Your task to perform on an android device: check google app version Image 0: 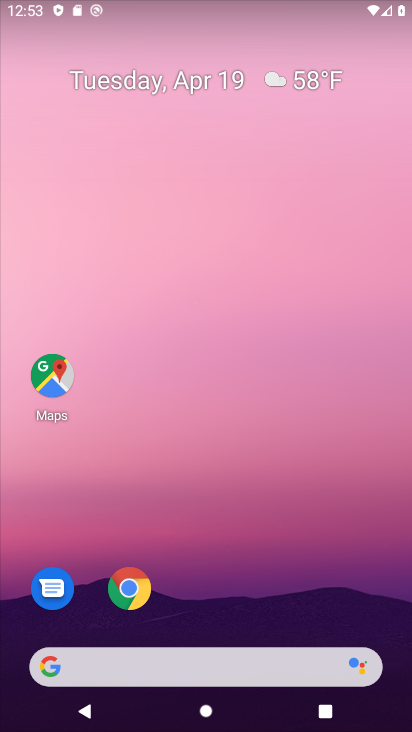
Step 0: drag from (225, 596) to (226, 209)
Your task to perform on an android device: check google app version Image 1: 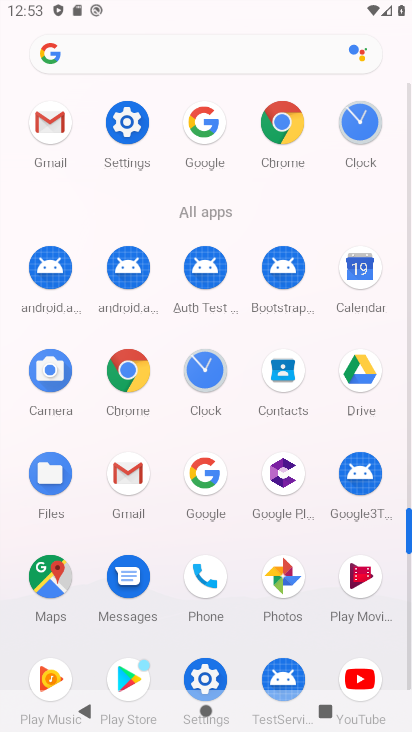
Step 1: click (207, 472)
Your task to perform on an android device: check google app version Image 2: 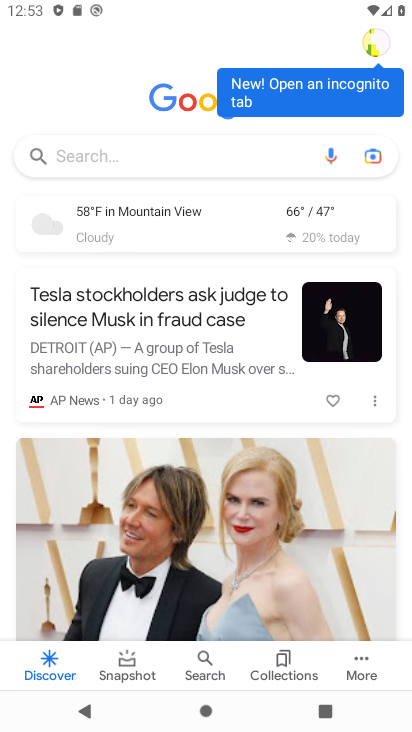
Step 2: click (359, 663)
Your task to perform on an android device: check google app version Image 3: 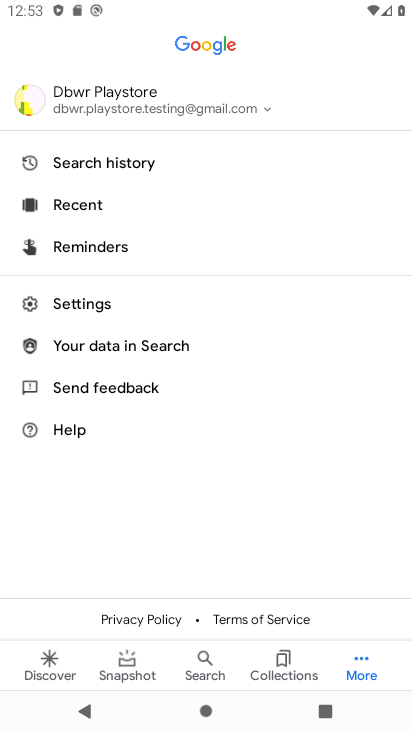
Step 3: click (82, 309)
Your task to perform on an android device: check google app version Image 4: 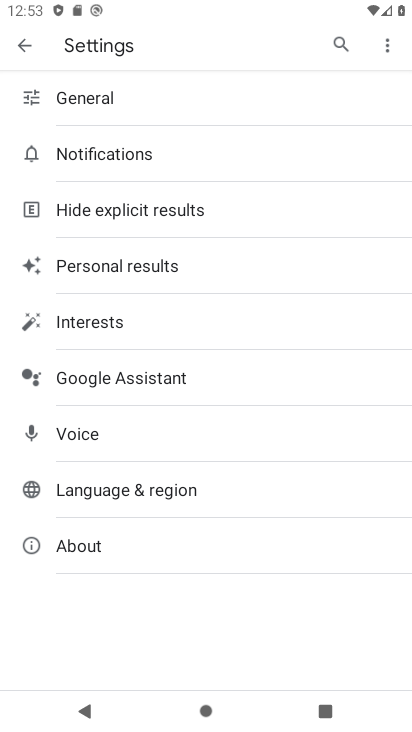
Step 4: click (134, 545)
Your task to perform on an android device: check google app version Image 5: 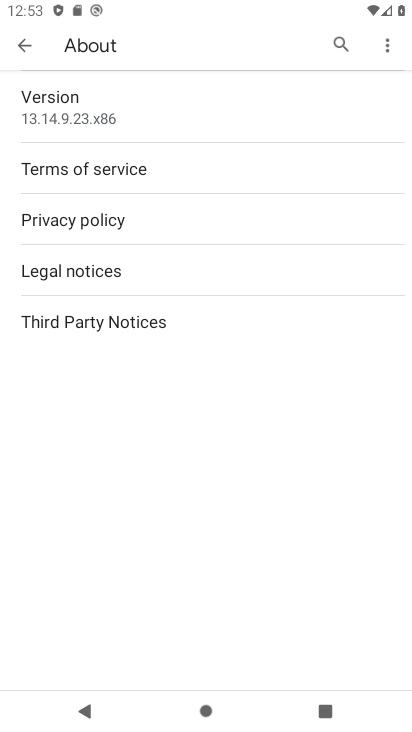
Step 5: click (129, 113)
Your task to perform on an android device: check google app version Image 6: 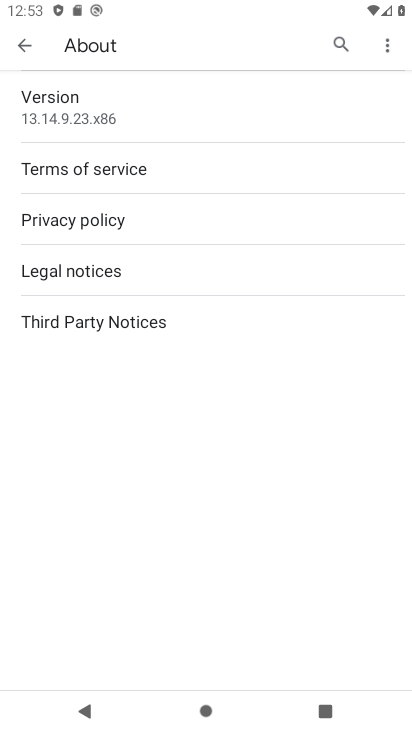
Step 6: click (138, 114)
Your task to perform on an android device: check google app version Image 7: 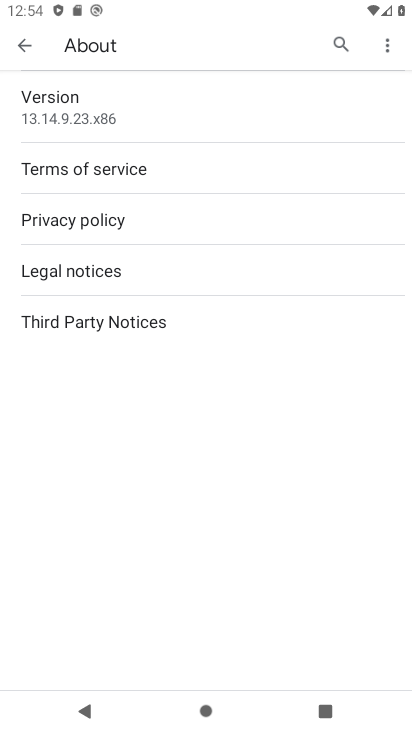
Step 7: task complete